Your task to perform on an android device: Go to Amazon Image 0: 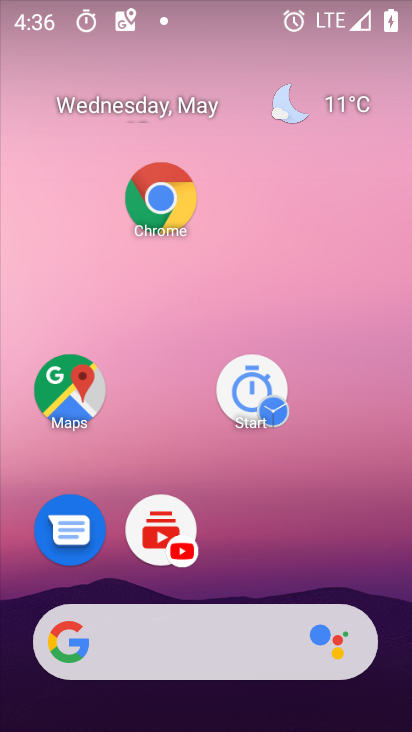
Step 0: drag from (264, 691) to (201, 217)
Your task to perform on an android device: Go to Amazon Image 1: 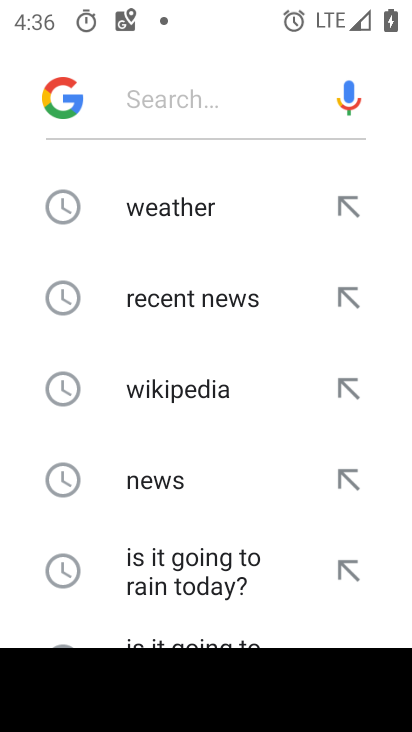
Step 1: press back button
Your task to perform on an android device: Go to Amazon Image 2: 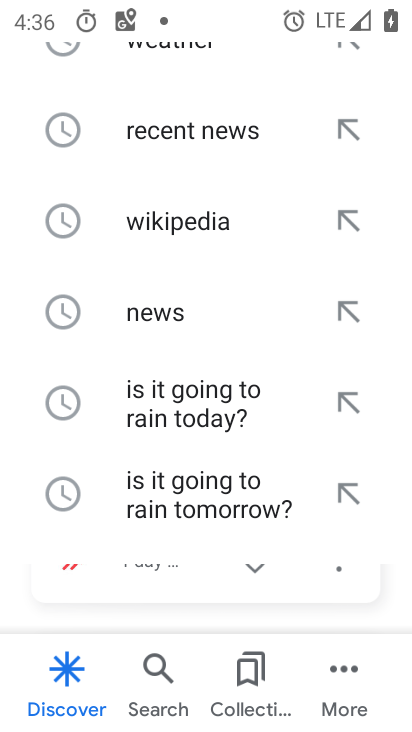
Step 2: press home button
Your task to perform on an android device: Go to Amazon Image 3: 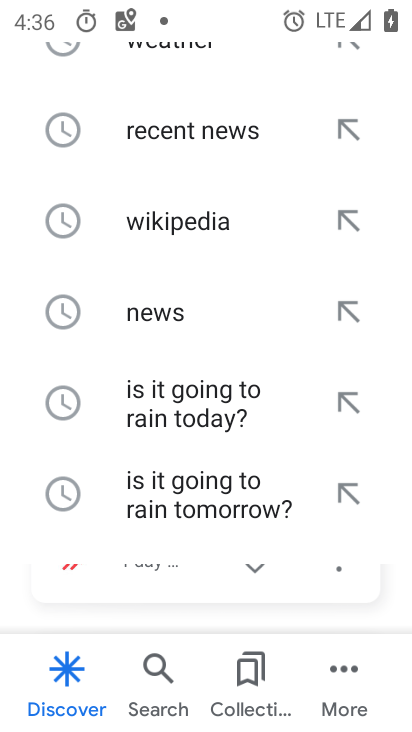
Step 3: press home button
Your task to perform on an android device: Go to Amazon Image 4: 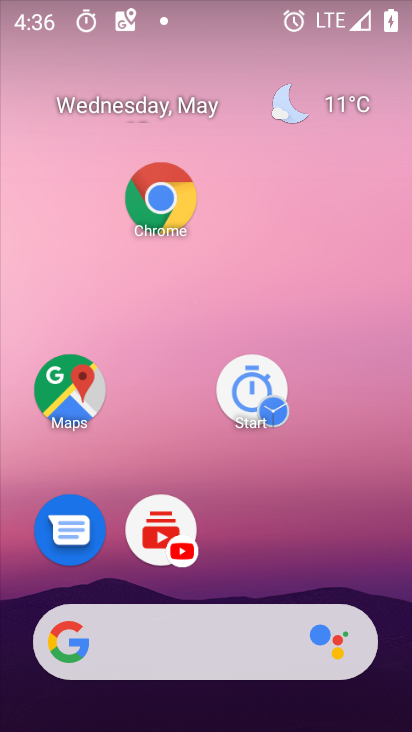
Step 4: drag from (283, 552) to (185, 52)
Your task to perform on an android device: Go to Amazon Image 5: 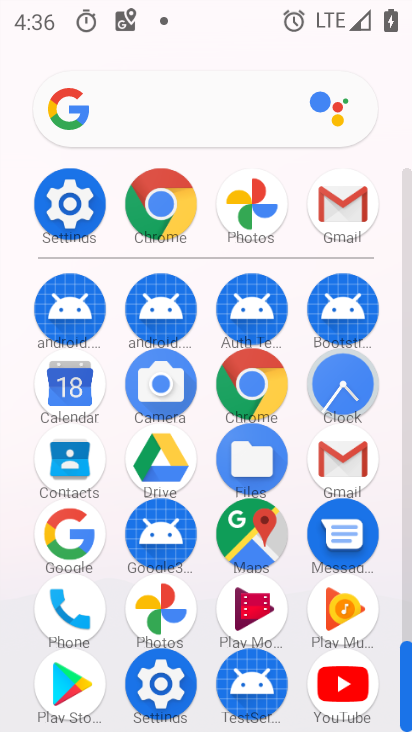
Step 5: drag from (198, 555) to (198, 302)
Your task to perform on an android device: Go to Amazon Image 6: 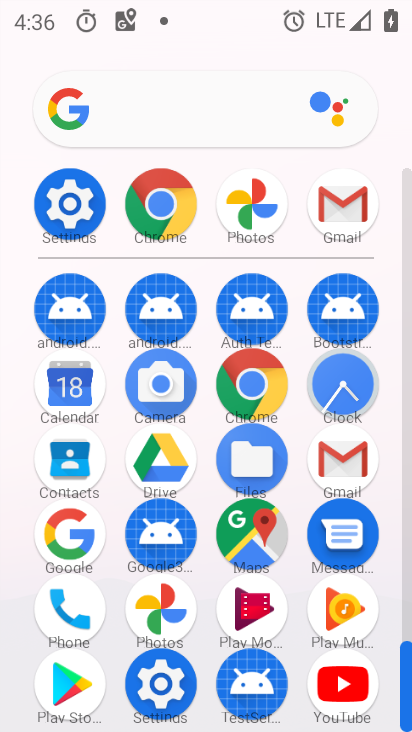
Step 6: click (152, 200)
Your task to perform on an android device: Go to Amazon Image 7: 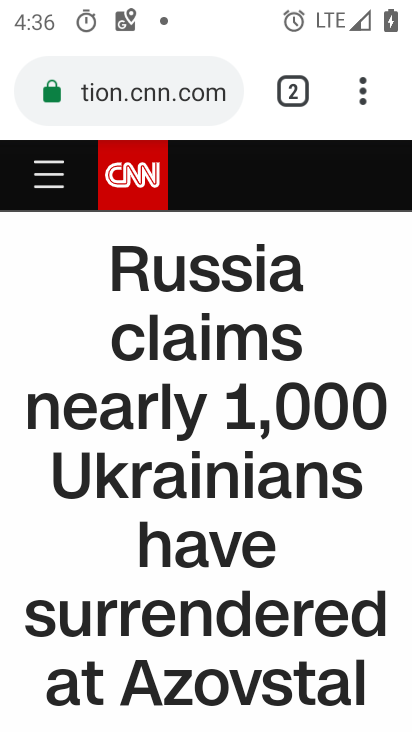
Step 7: click (360, 92)
Your task to perform on an android device: Go to Amazon Image 8: 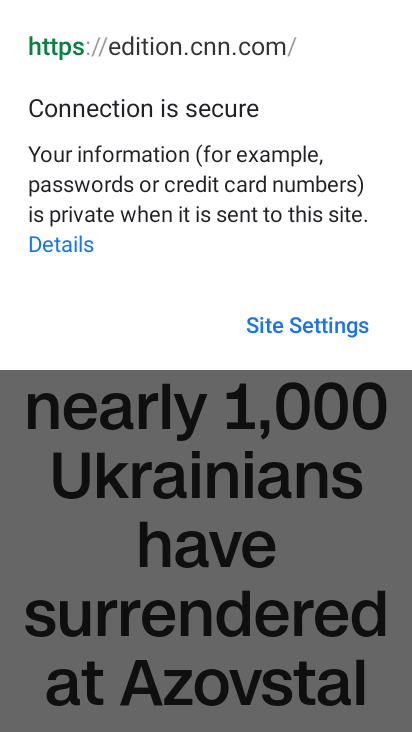
Step 8: click (212, 379)
Your task to perform on an android device: Go to Amazon Image 9: 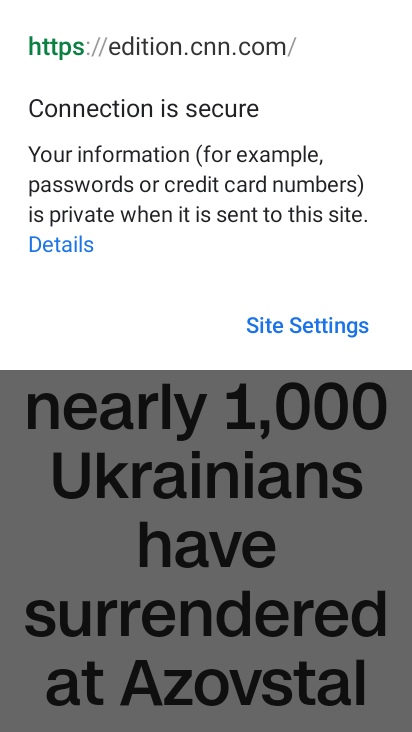
Step 9: click (212, 379)
Your task to perform on an android device: Go to Amazon Image 10: 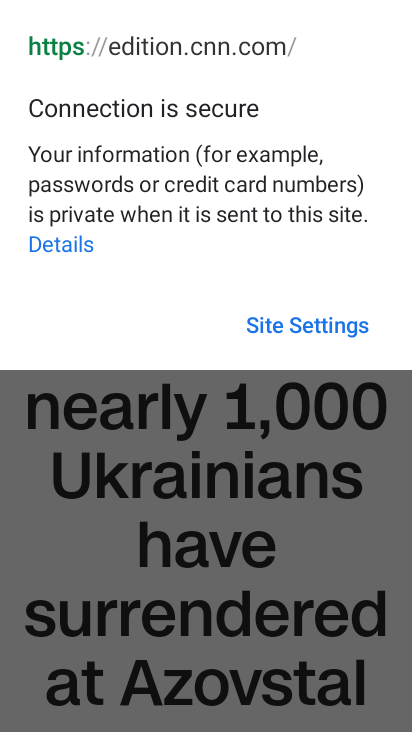
Step 10: click (212, 379)
Your task to perform on an android device: Go to Amazon Image 11: 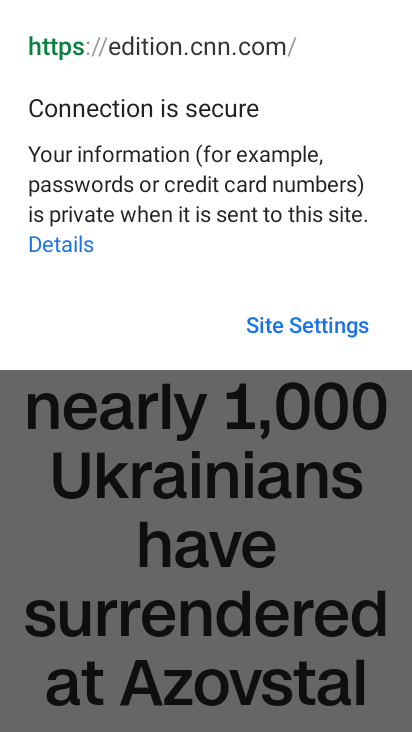
Step 11: click (212, 379)
Your task to perform on an android device: Go to Amazon Image 12: 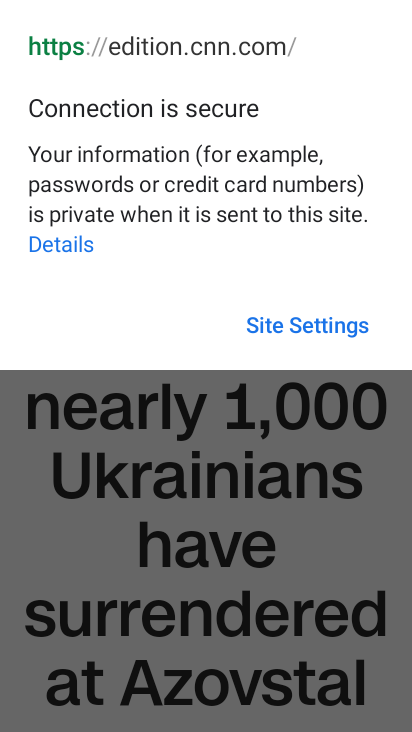
Step 12: click (299, 324)
Your task to perform on an android device: Go to Amazon Image 13: 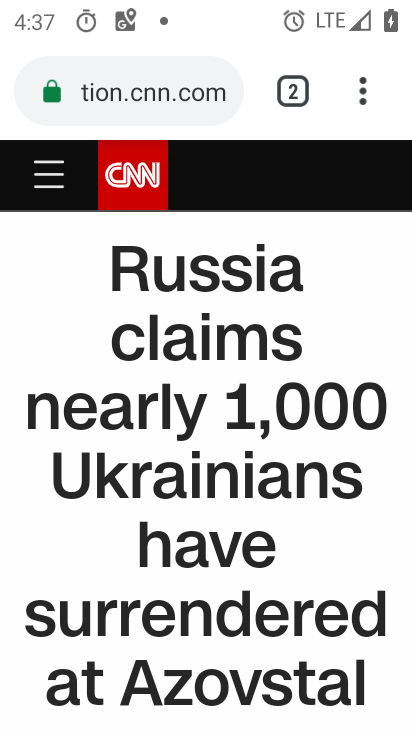
Step 13: click (339, 434)
Your task to perform on an android device: Go to Amazon Image 14: 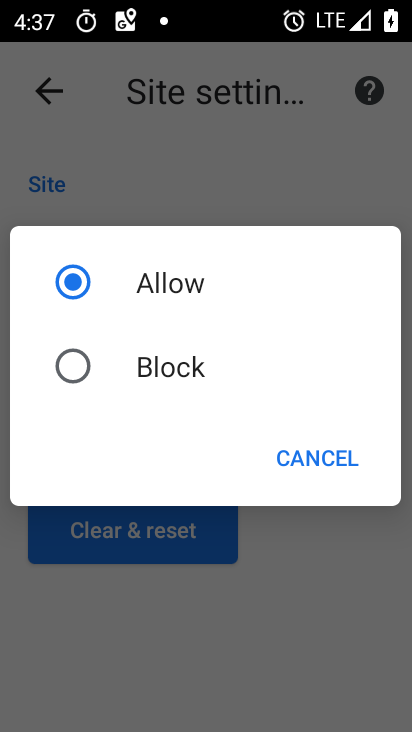
Step 14: click (328, 455)
Your task to perform on an android device: Go to Amazon Image 15: 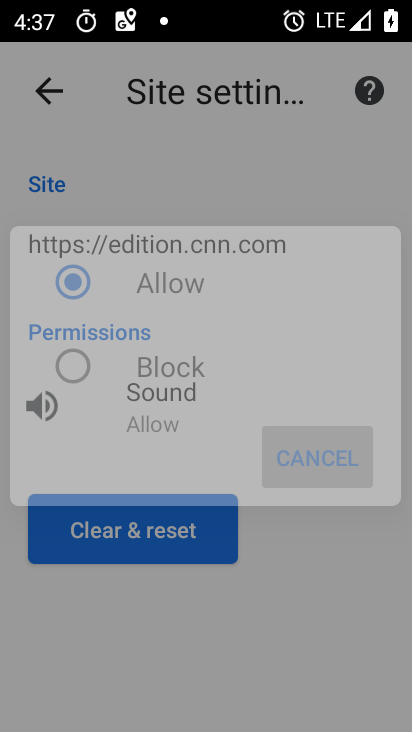
Step 15: click (328, 455)
Your task to perform on an android device: Go to Amazon Image 16: 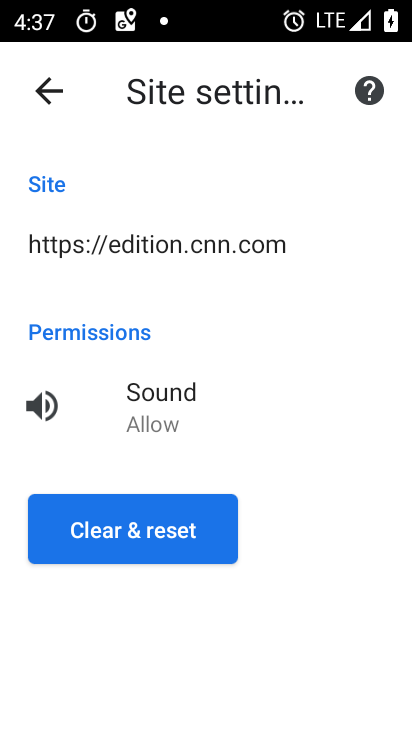
Step 16: click (327, 454)
Your task to perform on an android device: Go to Amazon Image 17: 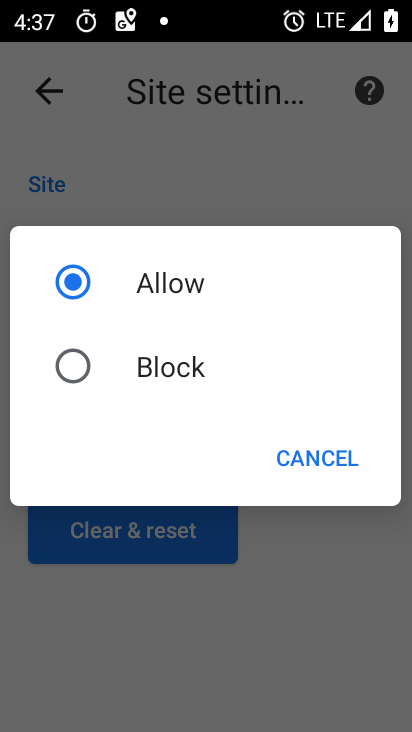
Step 17: click (339, 458)
Your task to perform on an android device: Go to Amazon Image 18: 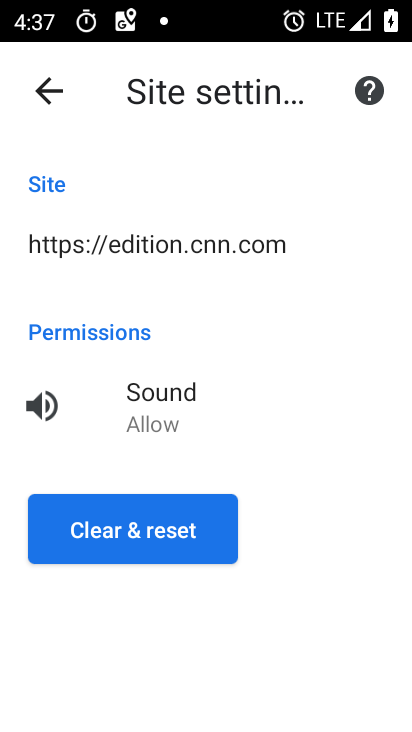
Step 18: click (39, 96)
Your task to perform on an android device: Go to Amazon Image 19: 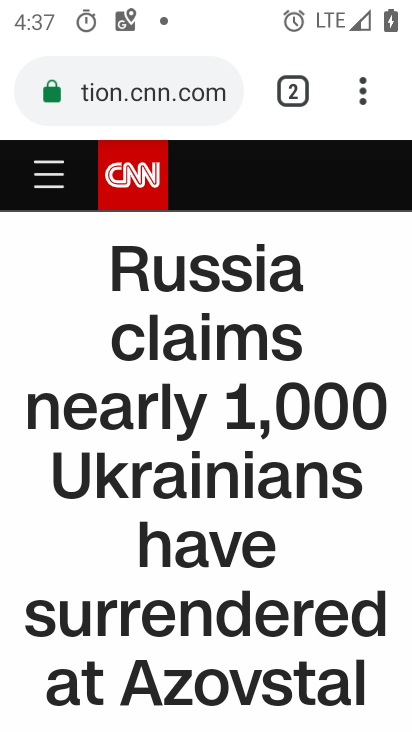
Step 19: drag from (349, 93) to (55, 178)
Your task to perform on an android device: Go to Amazon Image 20: 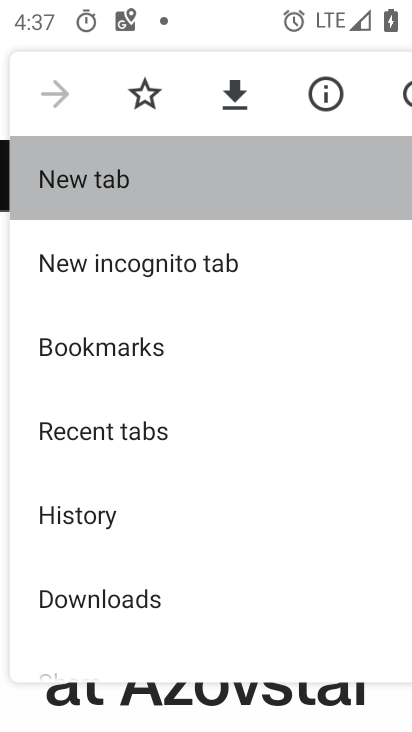
Step 20: click (55, 178)
Your task to perform on an android device: Go to Amazon Image 21: 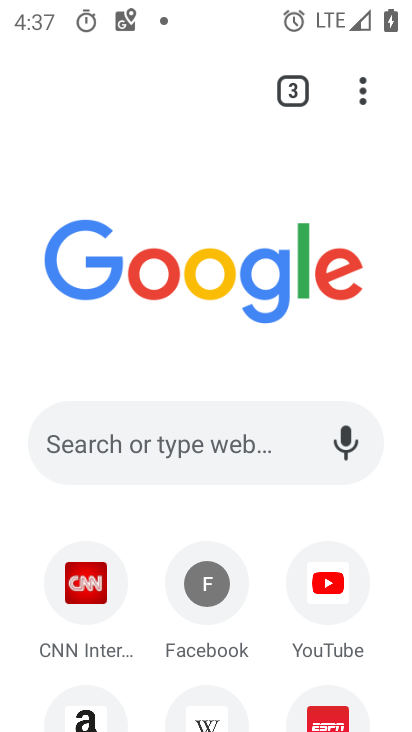
Step 21: drag from (134, 586) to (93, 268)
Your task to perform on an android device: Go to Amazon Image 22: 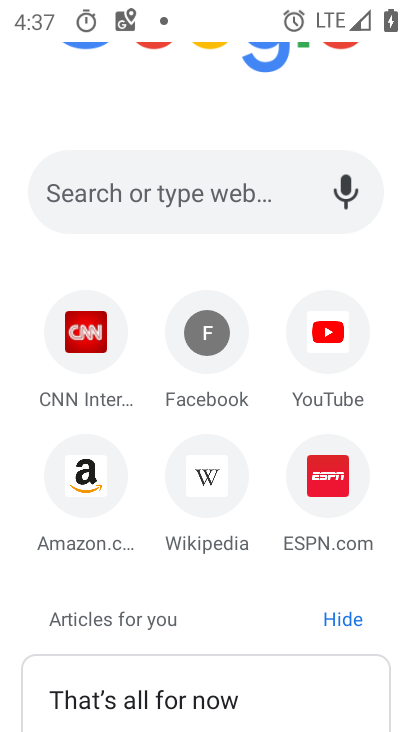
Step 22: click (84, 473)
Your task to perform on an android device: Go to Amazon Image 23: 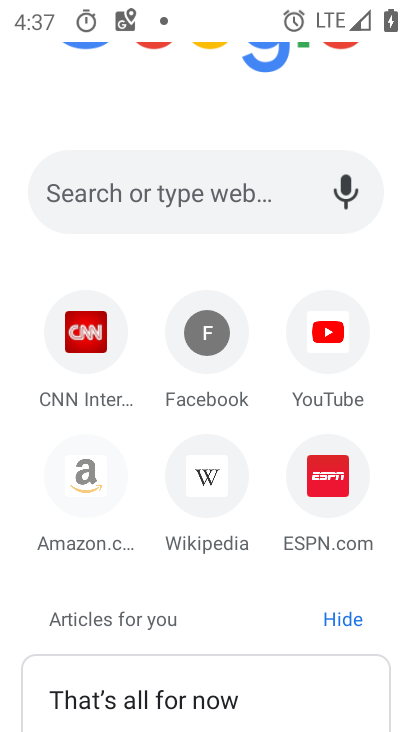
Step 23: click (84, 473)
Your task to perform on an android device: Go to Amazon Image 24: 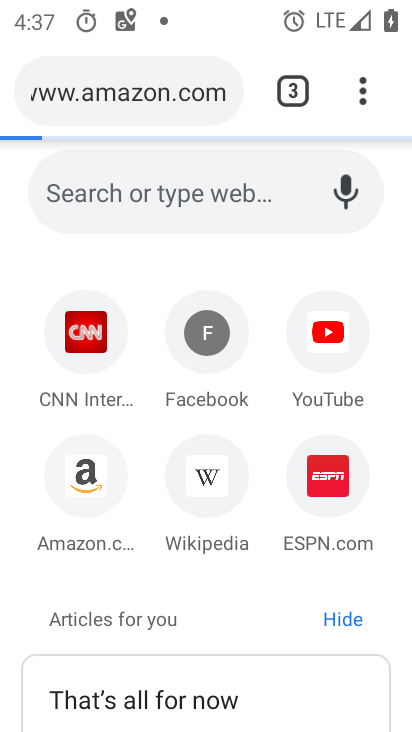
Step 24: click (84, 473)
Your task to perform on an android device: Go to Amazon Image 25: 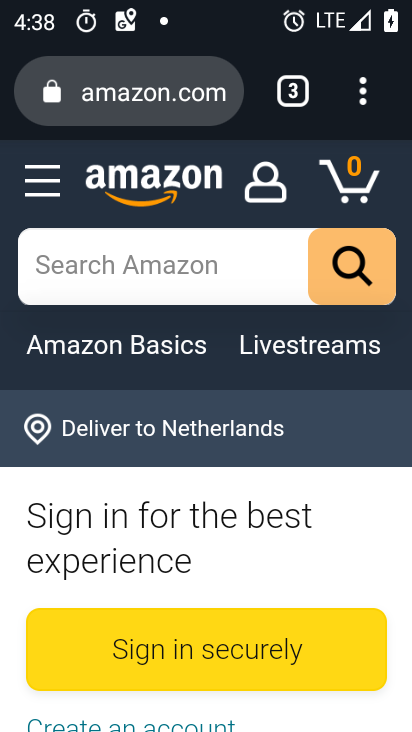
Step 25: press back button
Your task to perform on an android device: Go to Amazon Image 26: 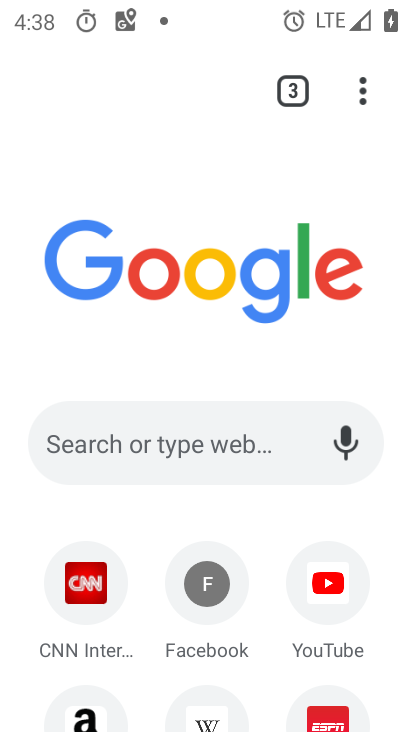
Step 26: drag from (262, 594) to (191, 226)
Your task to perform on an android device: Go to Amazon Image 27: 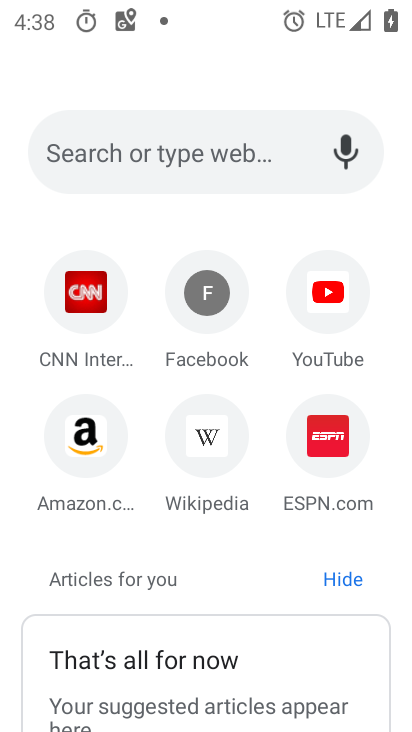
Step 27: drag from (255, 477) to (262, 253)
Your task to perform on an android device: Go to Amazon Image 28: 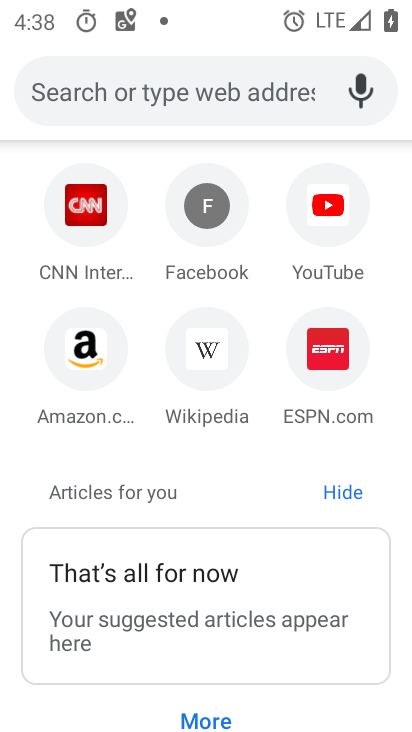
Step 28: click (80, 361)
Your task to perform on an android device: Go to Amazon Image 29: 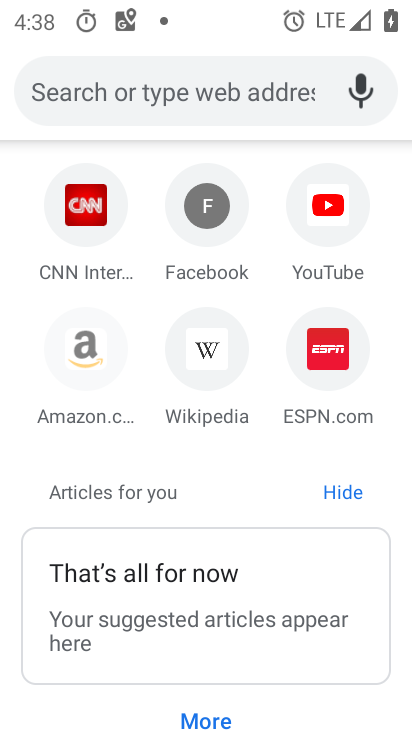
Step 29: click (80, 361)
Your task to perform on an android device: Go to Amazon Image 30: 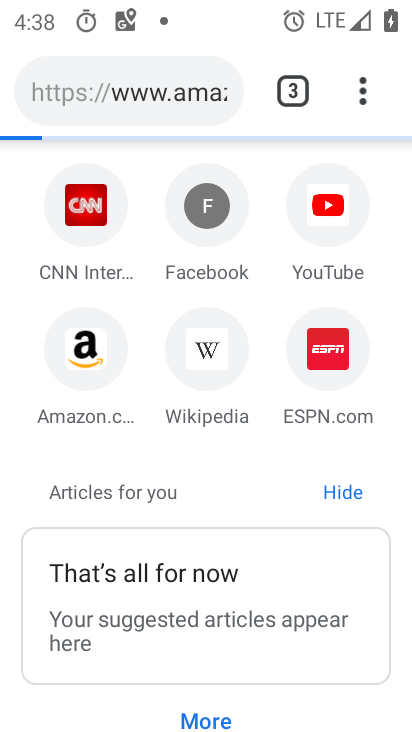
Step 30: click (80, 361)
Your task to perform on an android device: Go to Amazon Image 31: 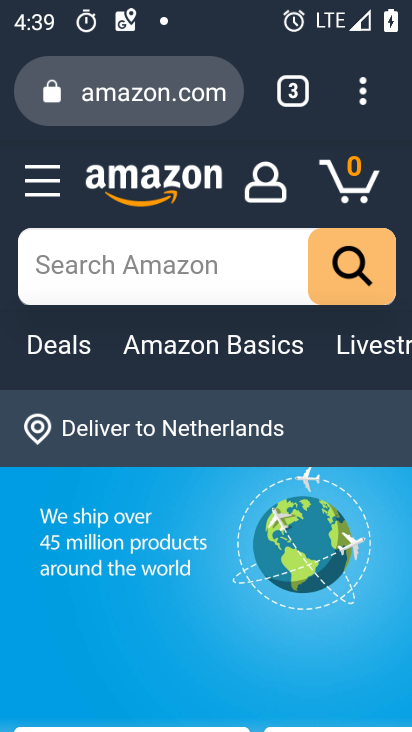
Step 31: task complete